Your task to perform on an android device: delete location history Image 0: 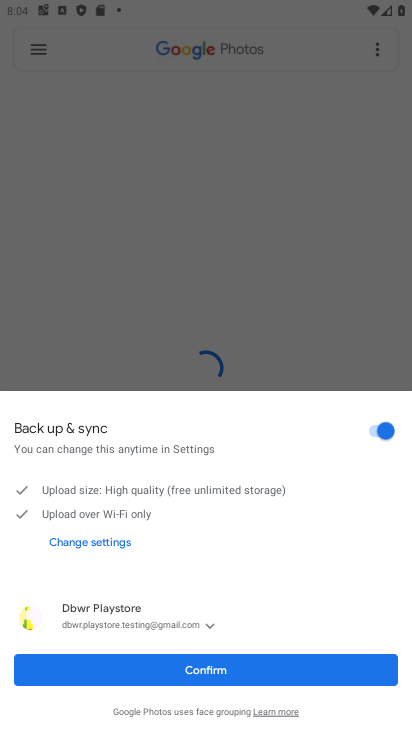
Step 0: click (198, 670)
Your task to perform on an android device: delete location history Image 1: 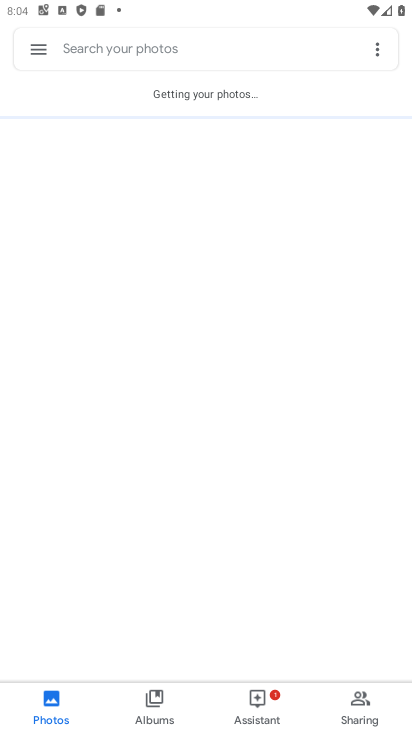
Step 1: click (39, 48)
Your task to perform on an android device: delete location history Image 2: 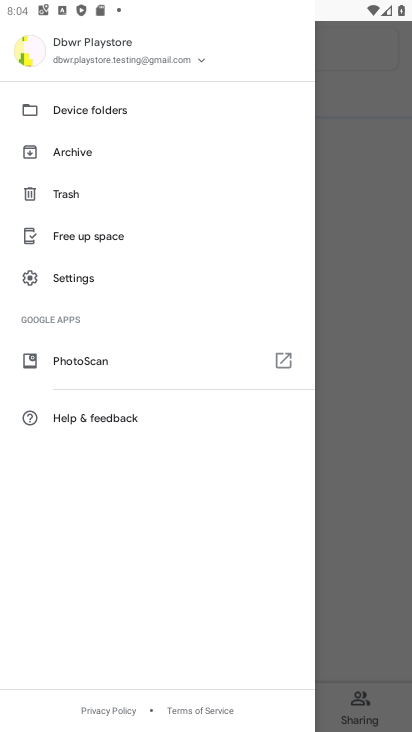
Step 2: press home button
Your task to perform on an android device: delete location history Image 3: 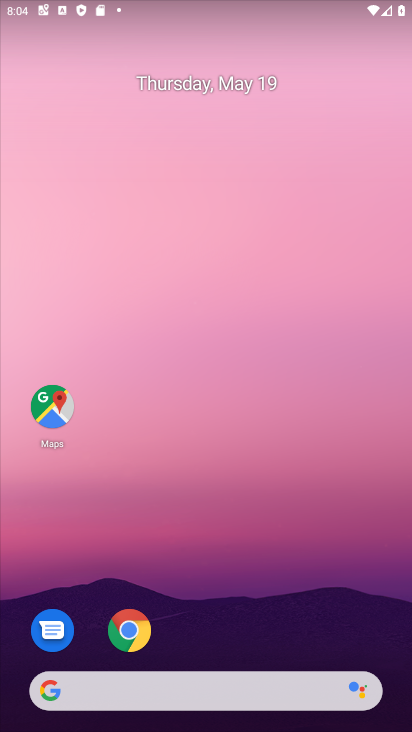
Step 3: click (51, 406)
Your task to perform on an android device: delete location history Image 4: 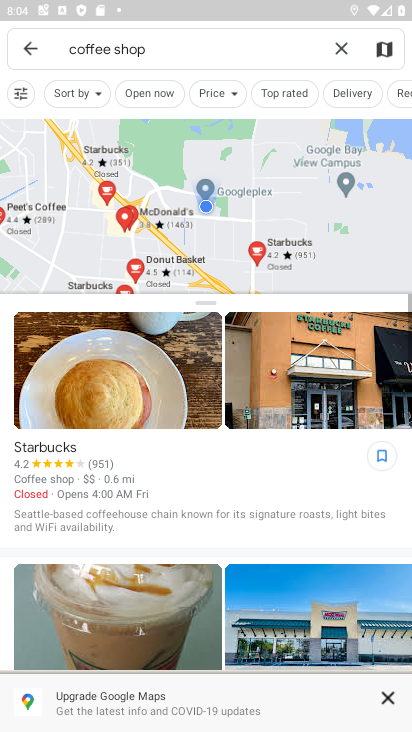
Step 4: click (334, 44)
Your task to perform on an android device: delete location history Image 5: 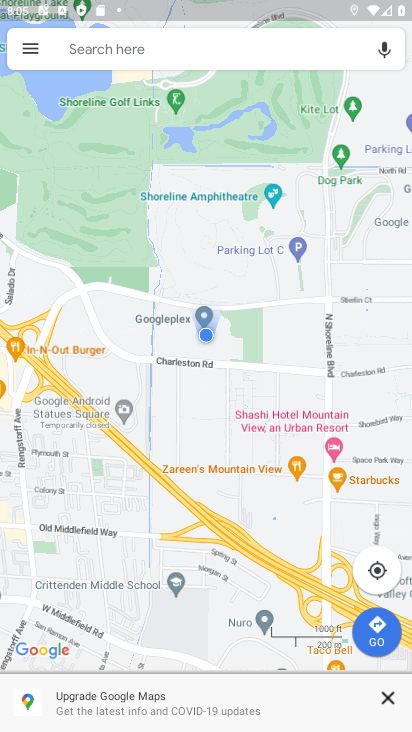
Step 5: click (34, 45)
Your task to perform on an android device: delete location history Image 6: 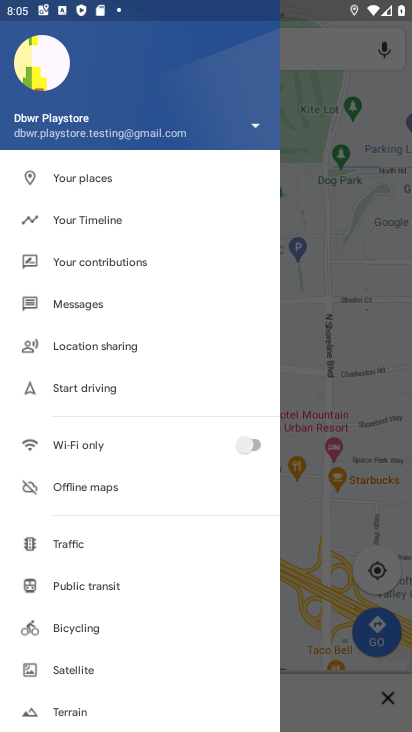
Step 6: drag from (142, 639) to (189, 208)
Your task to perform on an android device: delete location history Image 7: 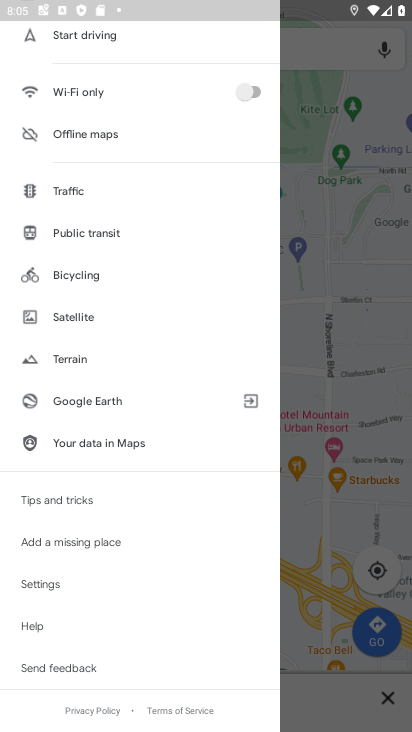
Step 7: click (42, 589)
Your task to perform on an android device: delete location history Image 8: 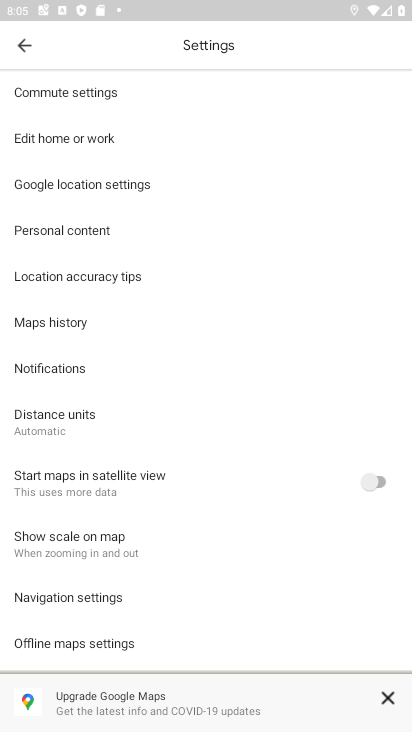
Step 8: click (55, 229)
Your task to perform on an android device: delete location history Image 9: 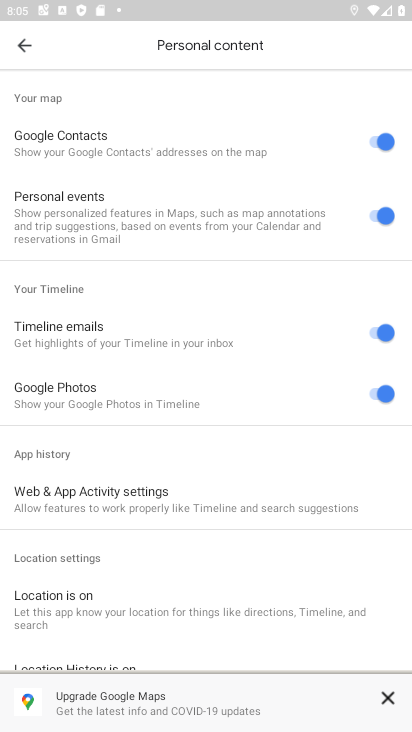
Step 9: drag from (294, 654) to (272, 250)
Your task to perform on an android device: delete location history Image 10: 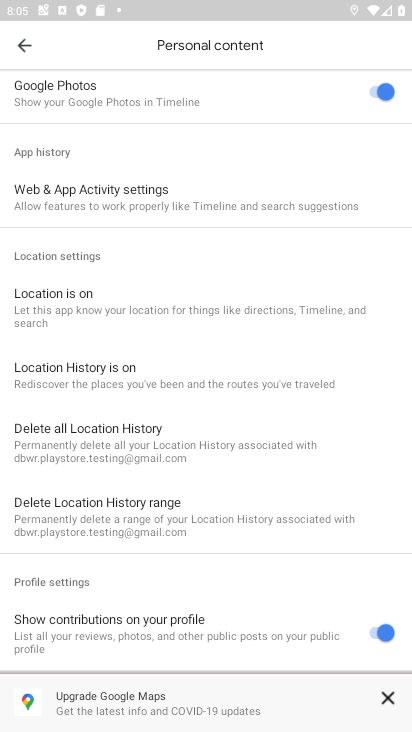
Step 10: click (62, 419)
Your task to perform on an android device: delete location history Image 11: 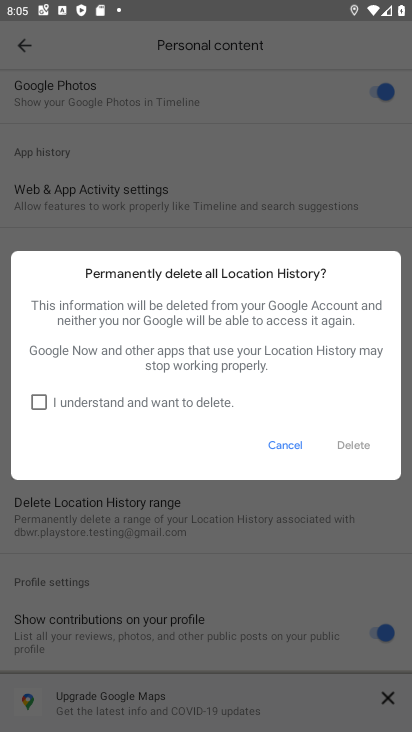
Step 11: click (41, 403)
Your task to perform on an android device: delete location history Image 12: 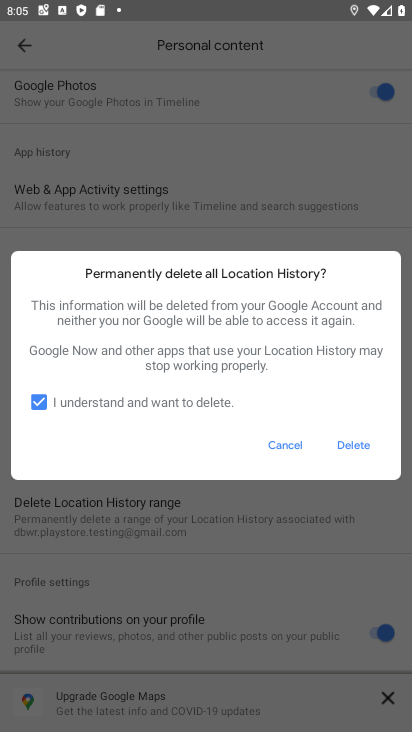
Step 12: click (357, 445)
Your task to perform on an android device: delete location history Image 13: 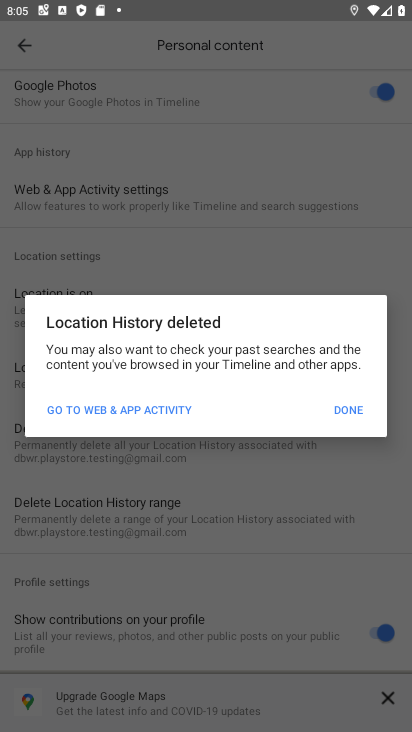
Step 13: click (348, 406)
Your task to perform on an android device: delete location history Image 14: 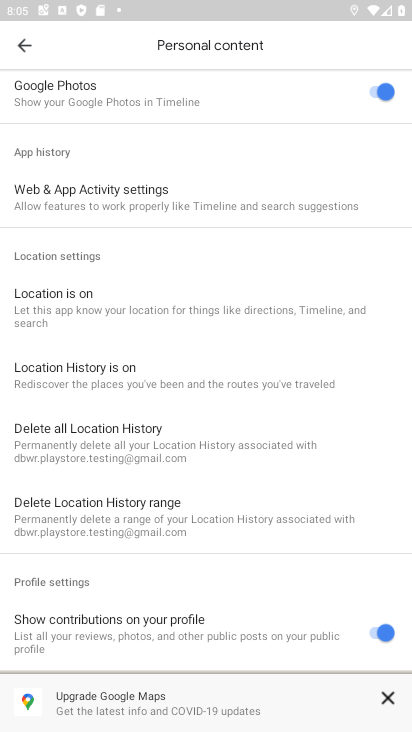
Step 14: task complete